Your task to perform on an android device: turn on improve location accuracy Image 0: 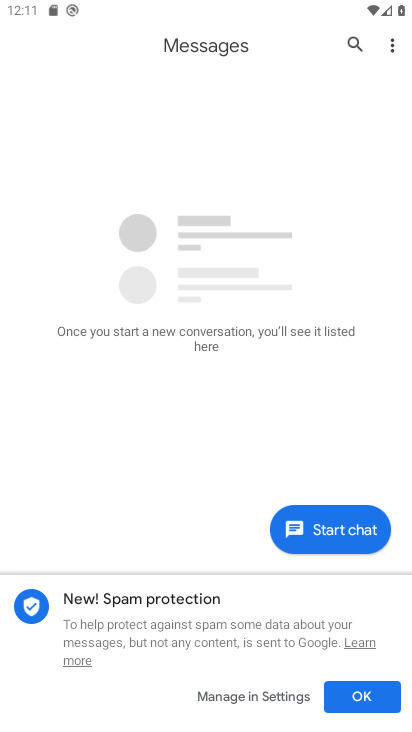
Step 0: press home button
Your task to perform on an android device: turn on improve location accuracy Image 1: 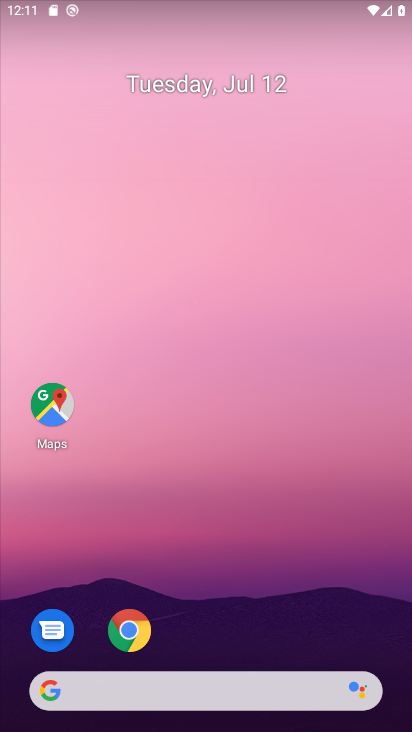
Step 1: drag from (232, 597) to (311, 0)
Your task to perform on an android device: turn on improve location accuracy Image 2: 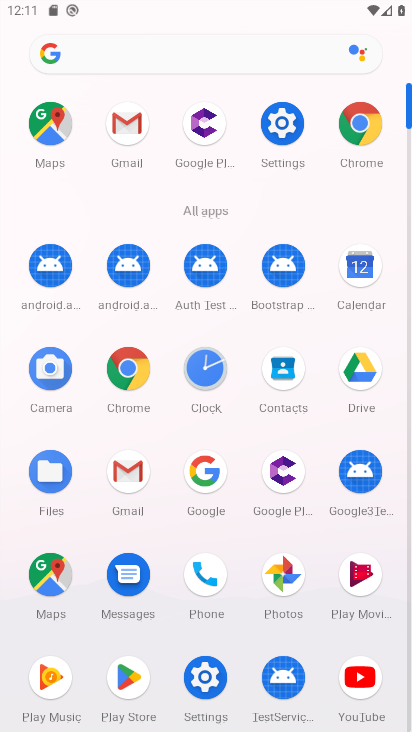
Step 2: click (204, 679)
Your task to perform on an android device: turn on improve location accuracy Image 3: 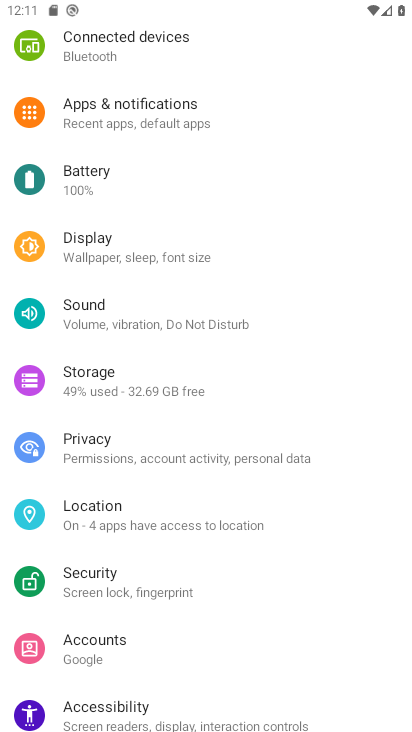
Step 3: click (123, 521)
Your task to perform on an android device: turn on improve location accuracy Image 4: 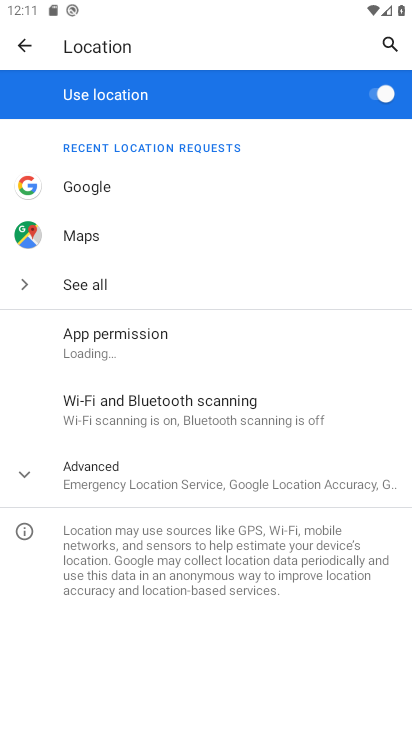
Step 4: click (136, 482)
Your task to perform on an android device: turn on improve location accuracy Image 5: 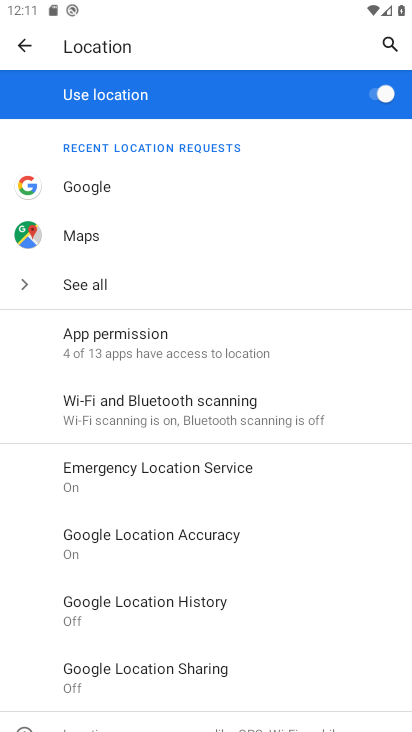
Step 5: click (159, 546)
Your task to perform on an android device: turn on improve location accuracy Image 6: 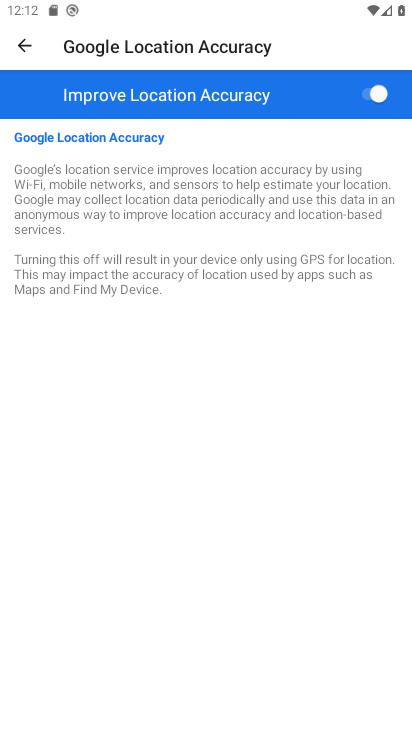
Step 6: task complete